Your task to perform on an android device: turn on improve location accuracy Image 0: 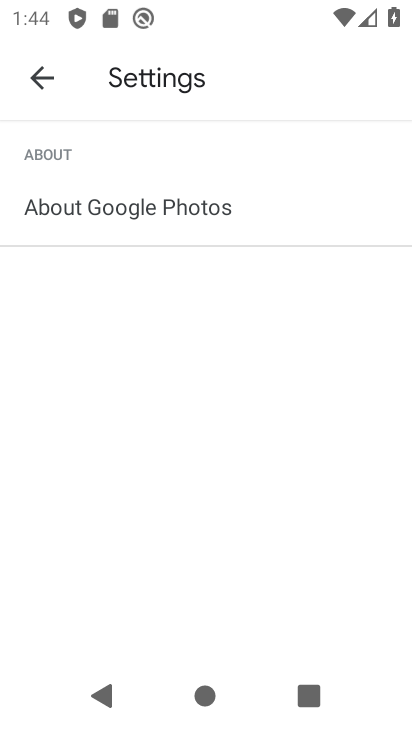
Step 0: press home button
Your task to perform on an android device: turn on improve location accuracy Image 1: 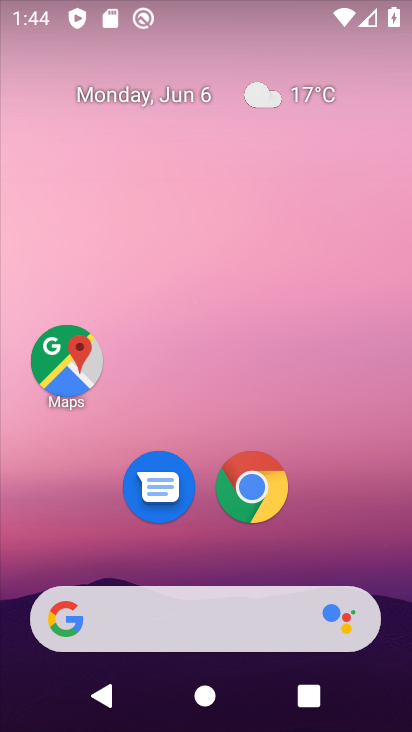
Step 1: drag from (334, 536) to (370, 56)
Your task to perform on an android device: turn on improve location accuracy Image 2: 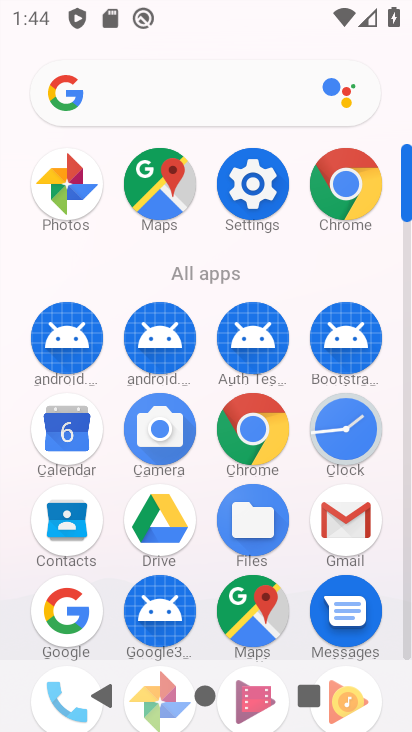
Step 2: click (263, 174)
Your task to perform on an android device: turn on improve location accuracy Image 3: 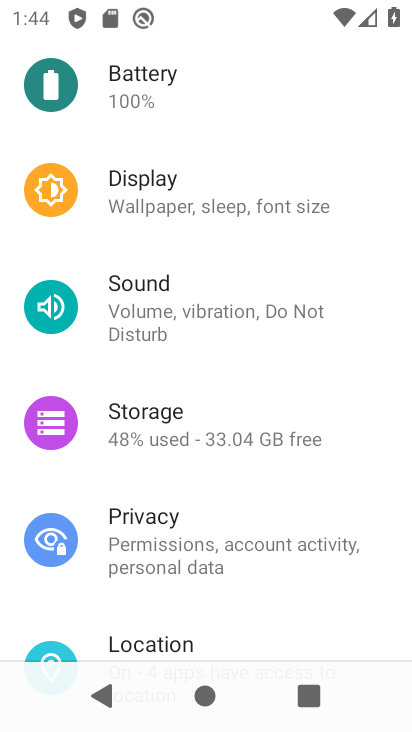
Step 3: drag from (158, 532) to (232, 249)
Your task to perform on an android device: turn on improve location accuracy Image 4: 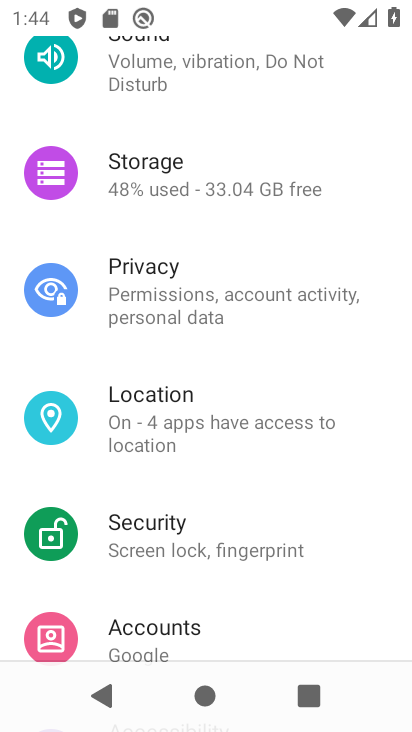
Step 4: click (174, 431)
Your task to perform on an android device: turn on improve location accuracy Image 5: 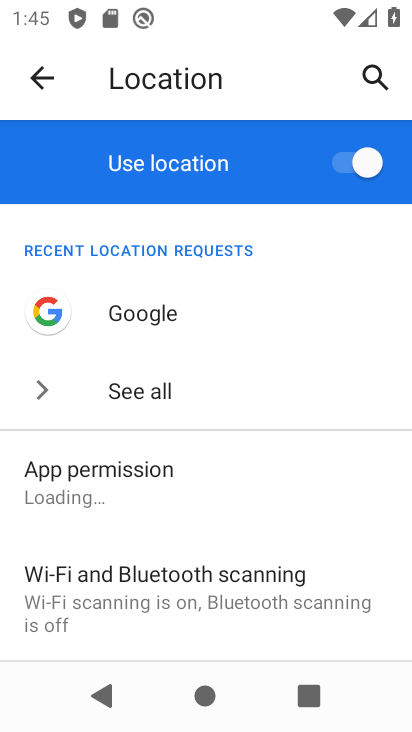
Step 5: drag from (304, 541) to (289, 326)
Your task to perform on an android device: turn on improve location accuracy Image 6: 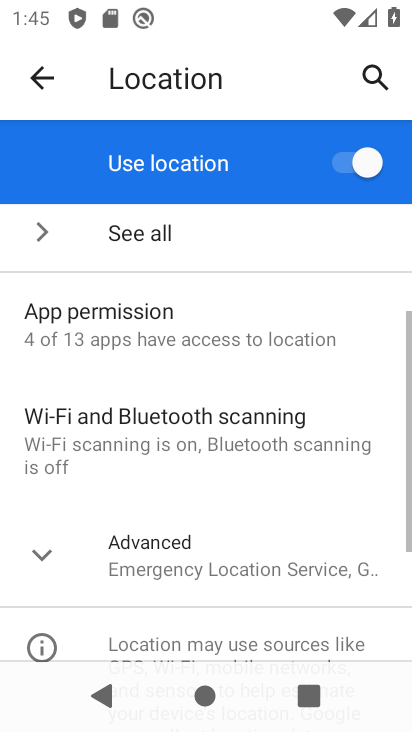
Step 6: click (150, 538)
Your task to perform on an android device: turn on improve location accuracy Image 7: 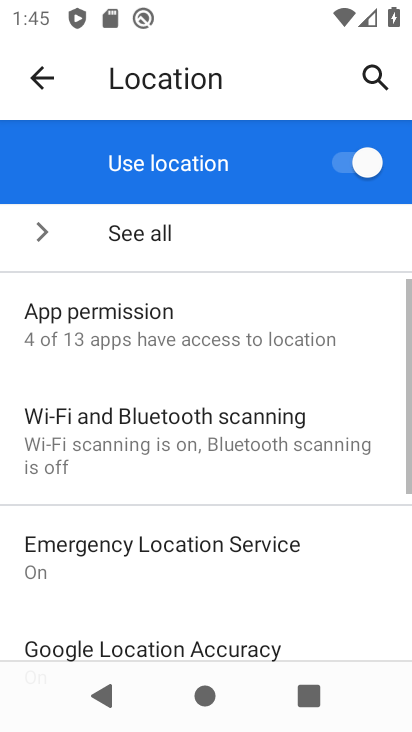
Step 7: task complete